Your task to perform on an android device: visit the assistant section in the google photos Image 0: 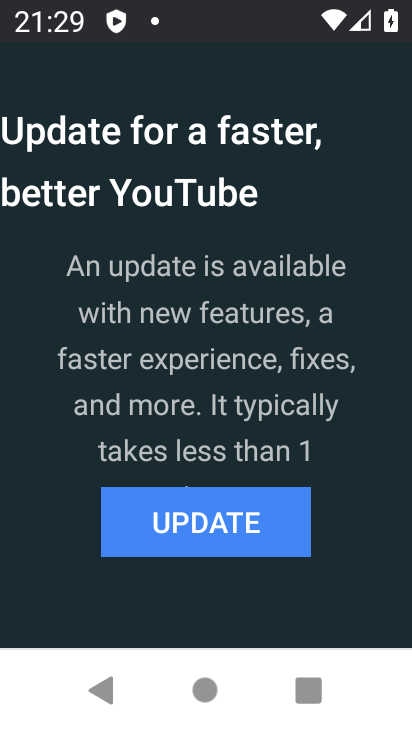
Step 0: press home button
Your task to perform on an android device: visit the assistant section in the google photos Image 1: 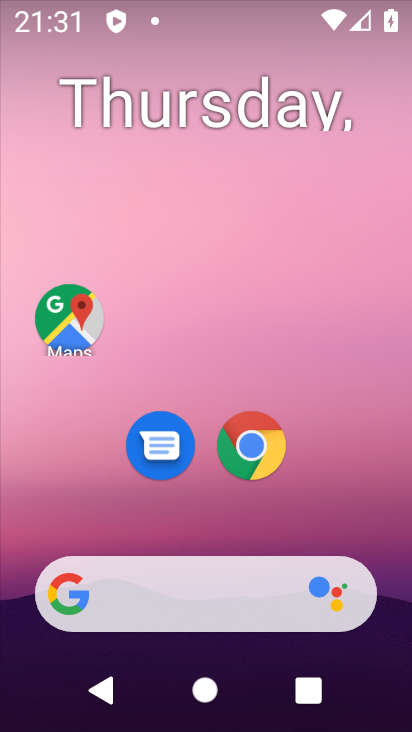
Step 1: drag from (32, 615) to (280, 165)
Your task to perform on an android device: visit the assistant section in the google photos Image 2: 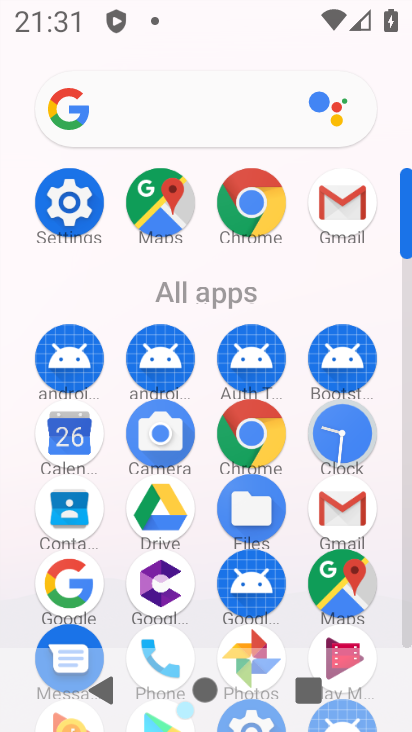
Step 2: click (246, 636)
Your task to perform on an android device: visit the assistant section in the google photos Image 3: 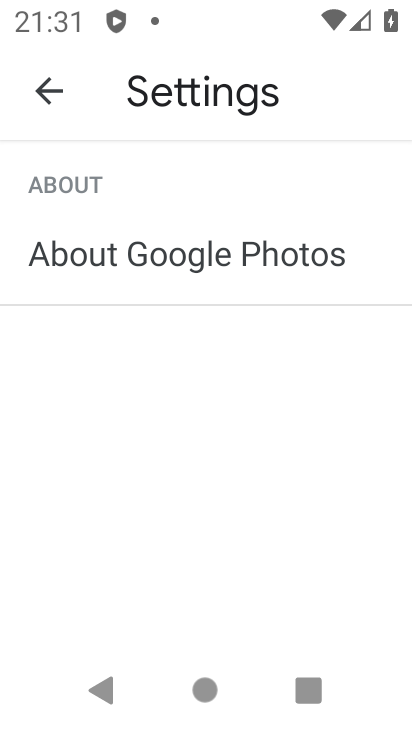
Step 3: click (40, 97)
Your task to perform on an android device: visit the assistant section in the google photos Image 4: 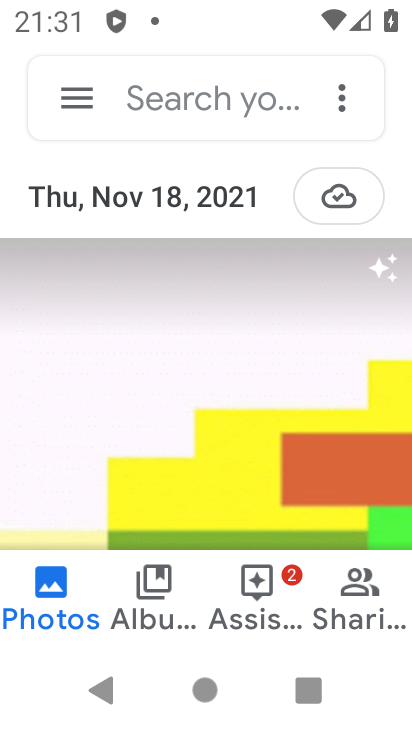
Step 4: click (256, 599)
Your task to perform on an android device: visit the assistant section in the google photos Image 5: 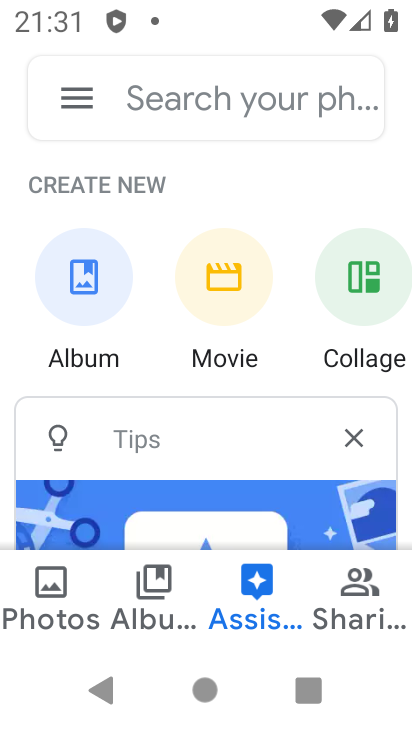
Step 5: task complete